Your task to perform on an android device: Go to Reddit.com Image 0: 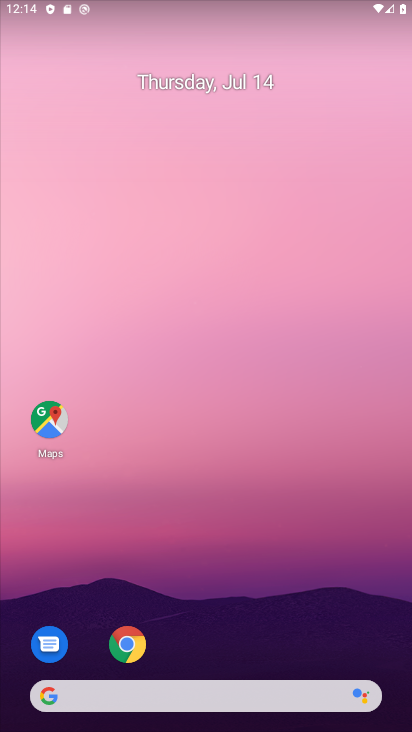
Step 0: click (184, 694)
Your task to perform on an android device: Go to Reddit.com Image 1: 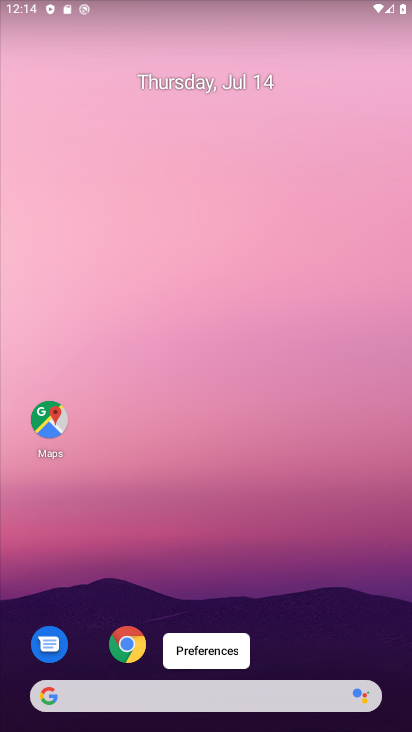
Step 1: click (184, 694)
Your task to perform on an android device: Go to Reddit.com Image 2: 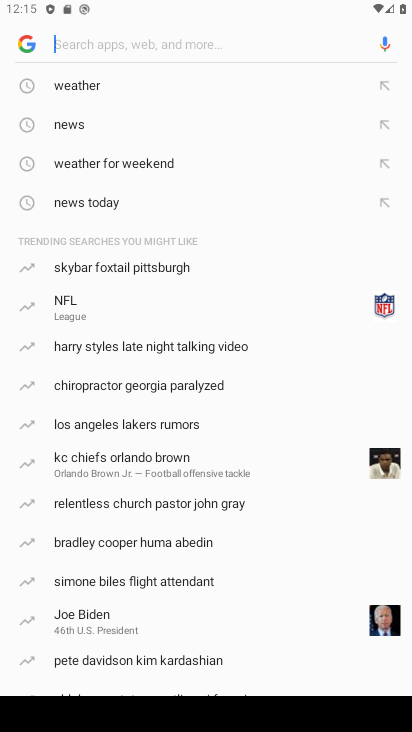
Step 2: type "Reddit.com"
Your task to perform on an android device: Go to Reddit.com Image 3: 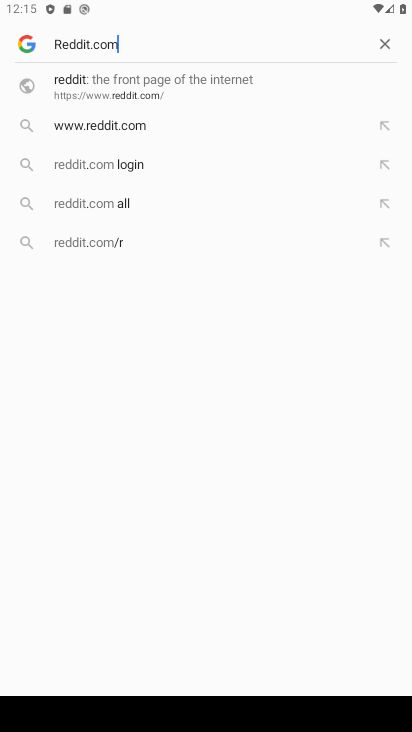
Step 3: click (191, 81)
Your task to perform on an android device: Go to Reddit.com Image 4: 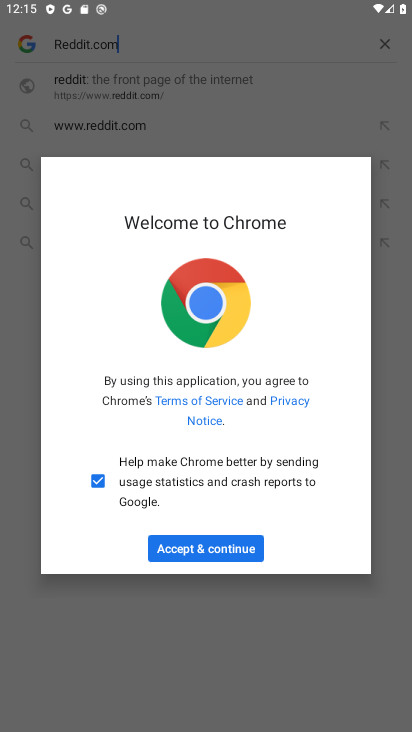
Step 4: click (213, 550)
Your task to perform on an android device: Go to Reddit.com Image 5: 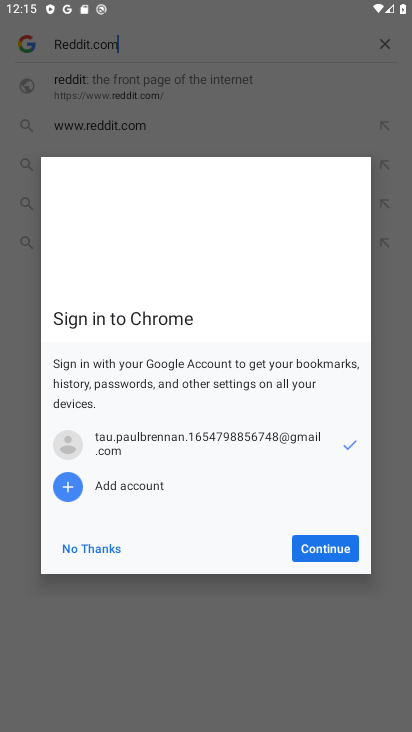
Step 5: click (346, 554)
Your task to perform on an android device: Go to Reddit.com Image 6: 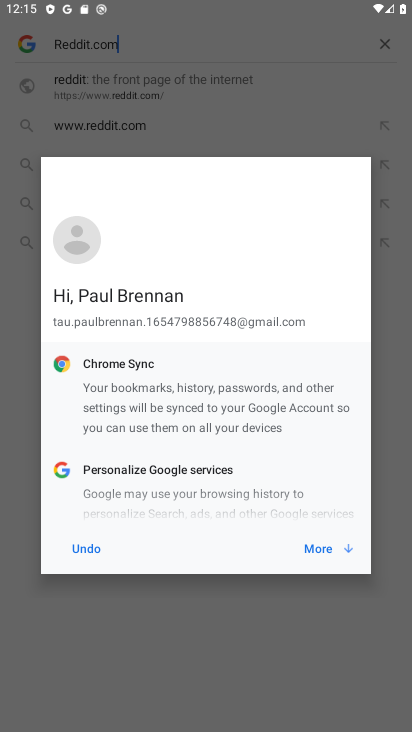
Step 6: click (347, 554)
Your task to perform on an android device: Go to Reddit.com Image 7: 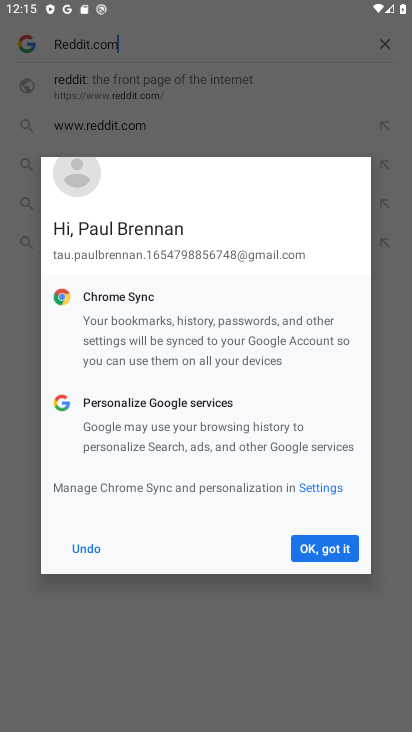
Step 7: click (314, 552)
Your task to perform on an android device: Go to Reddit.com Image 8: 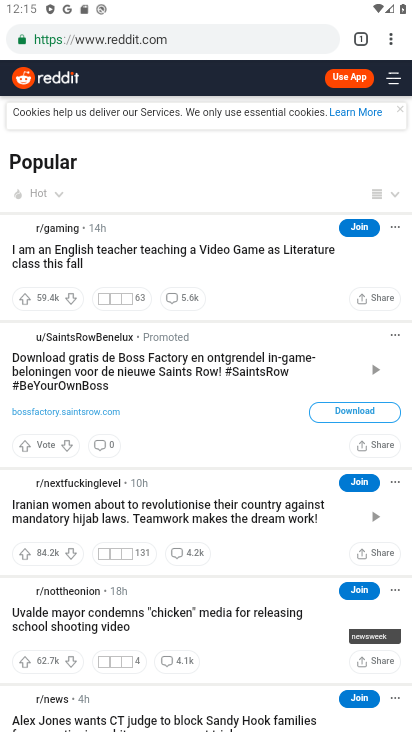
Step 8: task complete